Your task to perform on an android device: Show me popular games on the Play Store Image 0: 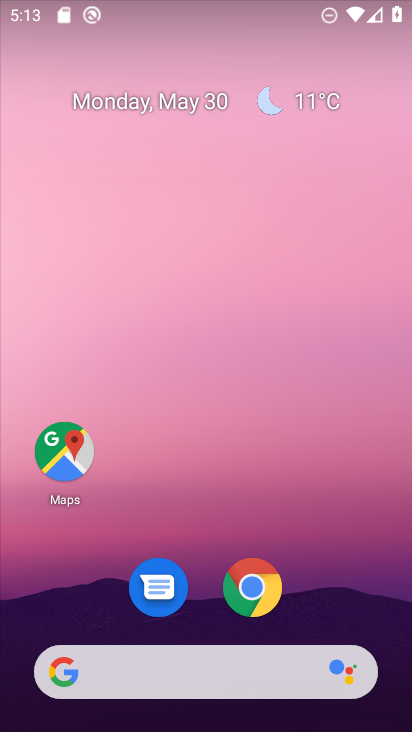
Step 0: drag from (304, 484) to (239, 32)
Your task to perform on an android device: Show me popular games on the Play Store Image 1: 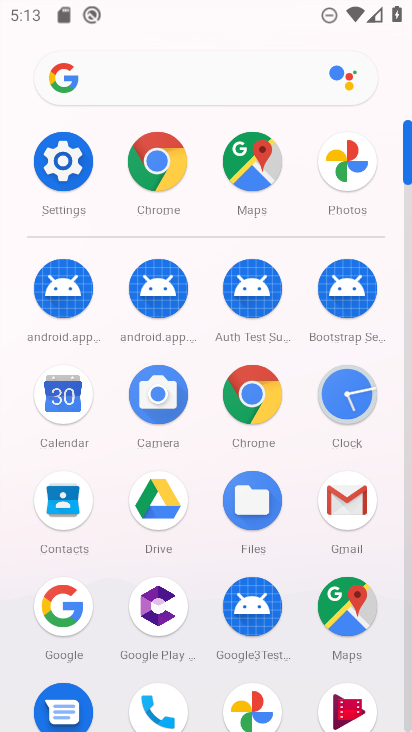
Step 1: drag from (16, 572) to (37, 206)
Your task to perform on an android device: Show me popular games on the Play Store Image 2: 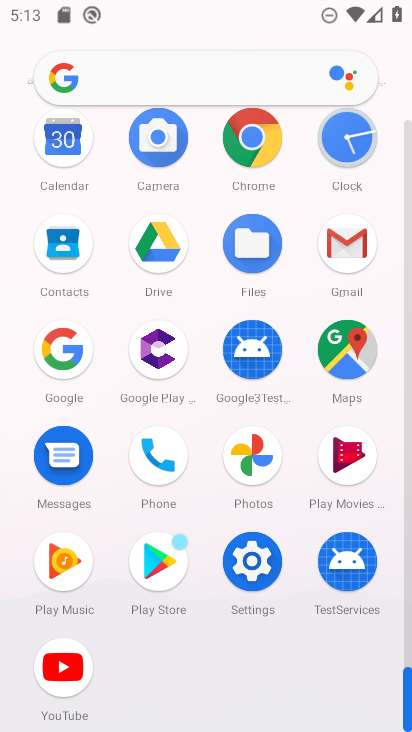
Step 2: click (168, 559)
Your task to perform on an android device: Show me popular games on the Play Store Image 3: 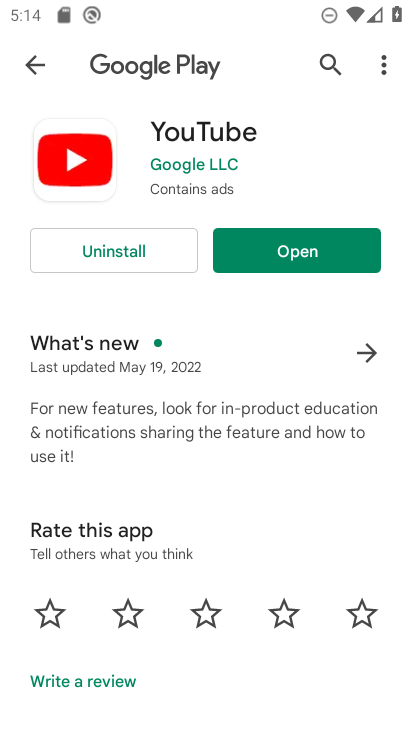
Step 3: press back button
Your task to perform on an android device: Show me popular games on the Play Store Image 4: 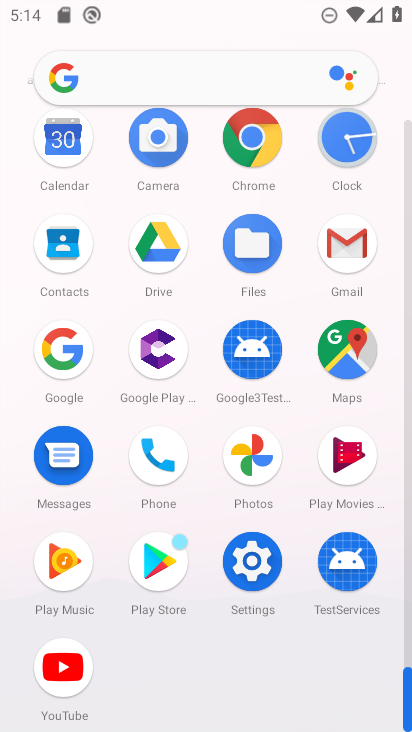
Step 4: click (161, 556)
Your task to perform on an android device: Show me popular games on the Play Store Image 5: 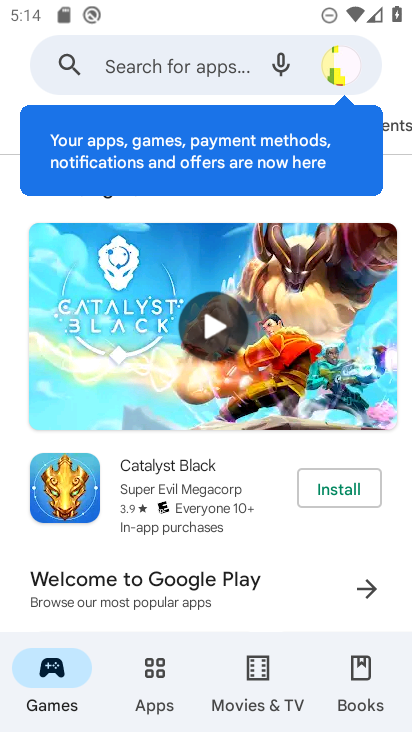
Step 5: task complete